Your task to perform on an android device: turn off picture-in-picture Image 0: 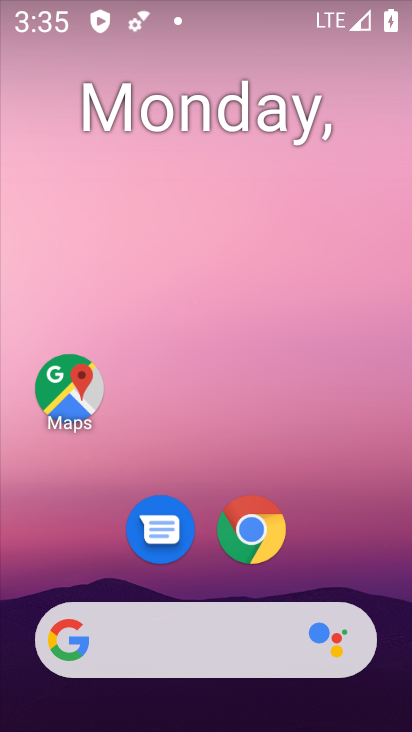
Step 0: click (263, 534)
Your task to perform on an android device: turn off picture-in-picture Image 1: 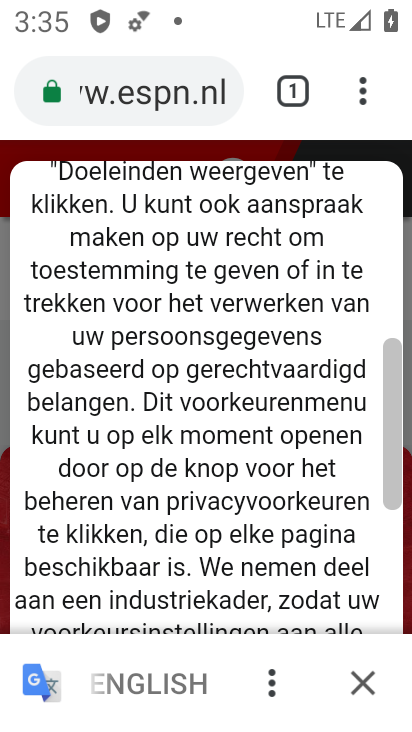
Step 1: press home button
Your task to perform on an android device: turn off picture-in-picture Image 2: 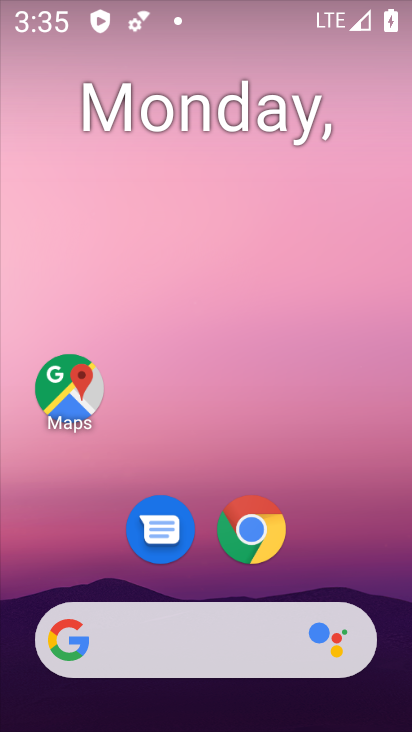
Step 2: click (260, 600)
Your task to perform on an android device: turn off picture-in-picture Image 3: 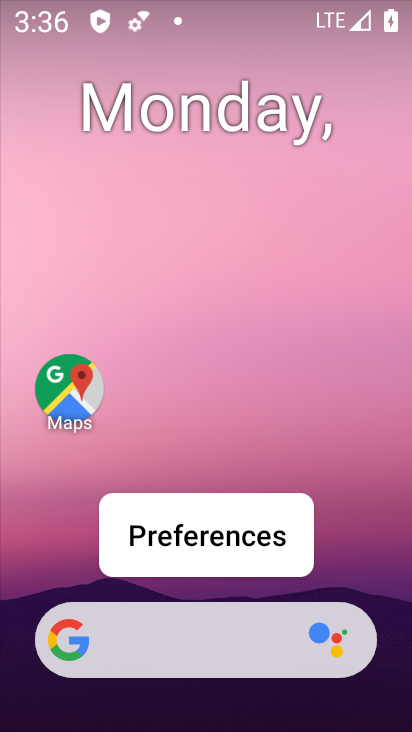
Step 3: click (57, 411)
Your task to perform on an android device: turn off picture-in-picture Image 4: 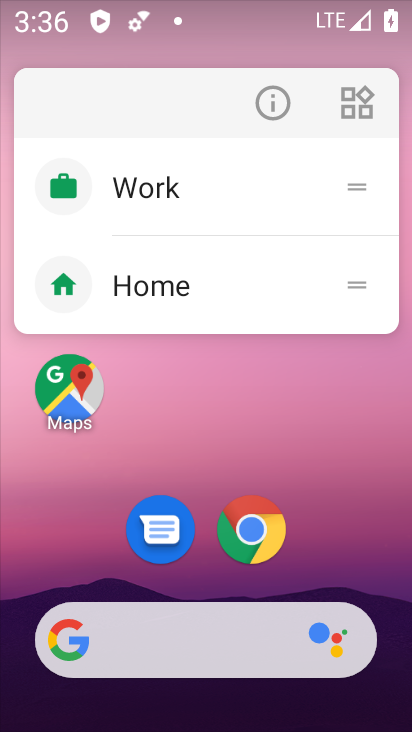
Step 4: click (262, 101)
Your task to perform on an android device: turn off picture-in-picture Image 5: 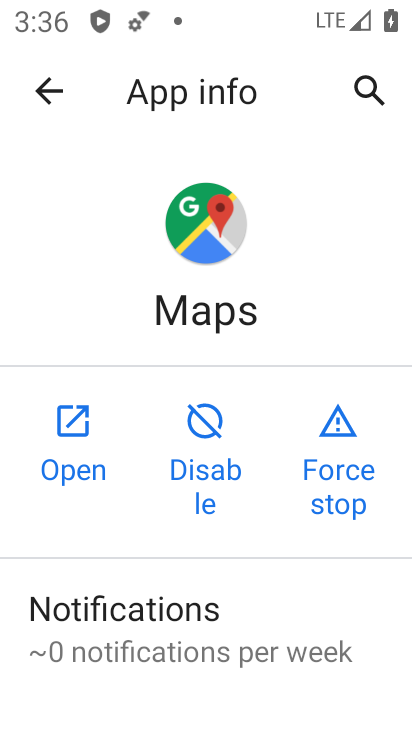
Step 5: drag from (306, 669) to (263, 50)
Your task to perform on an android device: turn off picture-in-picture Image 6: 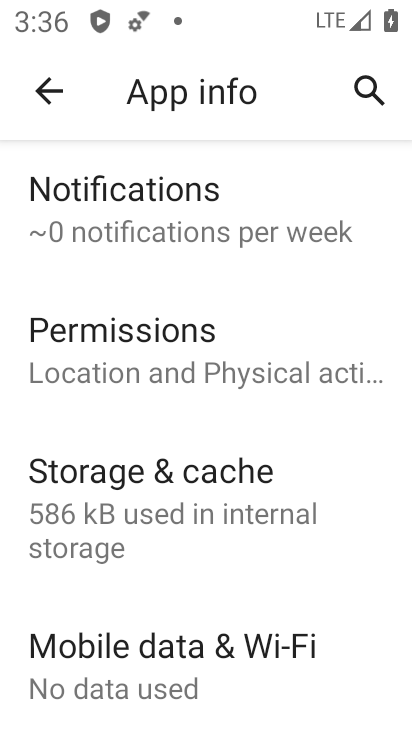
Step 6: drag from (248, 593) to (253, 55)
Your task to perform on an android device: turn off picture-in-picture Image 7: 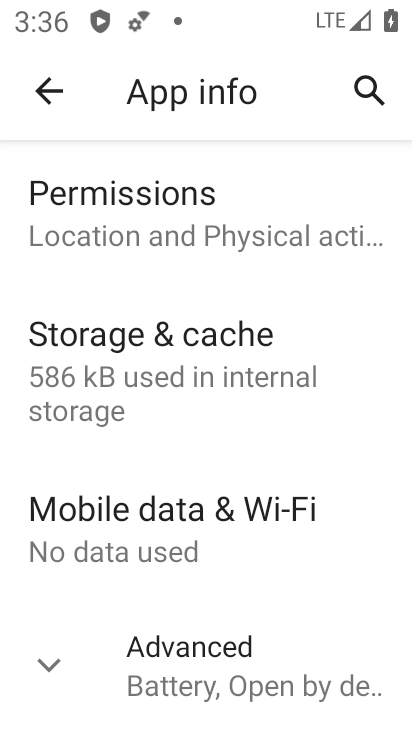
Step 7: click (184, 684)
Your task to perform on an android device: turn off picture-in-picture Image 8: 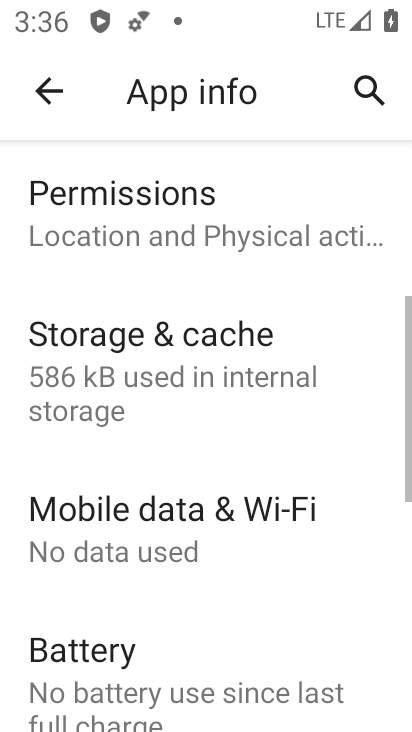
Step 8: drag from (277, 626) to (223, 99)
Your task to perform on an android device: turn off picture-in-picture Image 9: 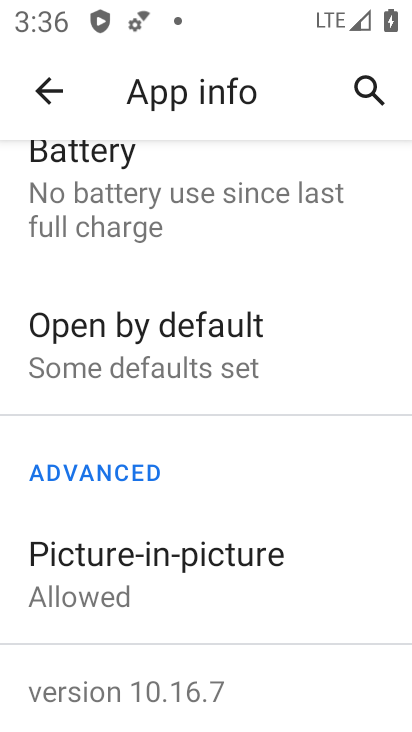
Step 9: click (202, 599)
Your task to perform on an android device: turn off picture-in-picture Image 10: 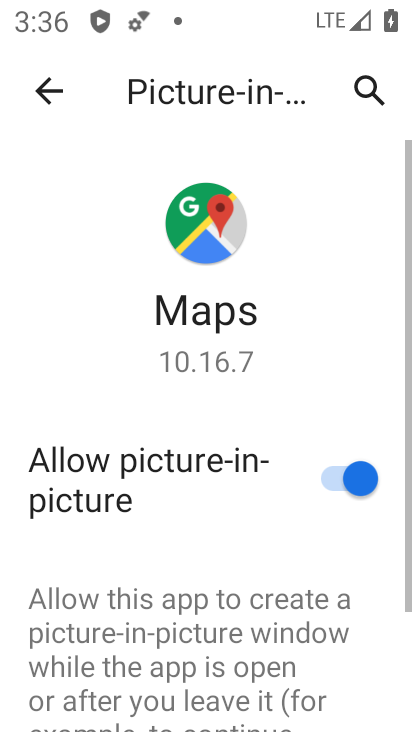
Step 10: click (348, 491)
Your task to perform on an android device: turn off picture-in-picture Image 11: 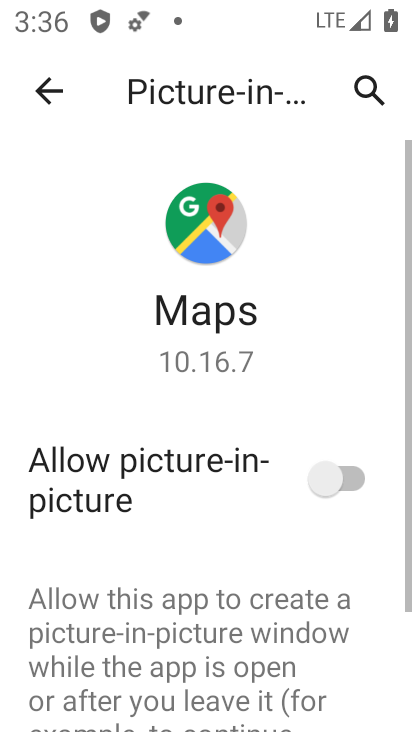
Step 11: task complete